Your task to perform on an android device: turn on sleep mode Image 0: 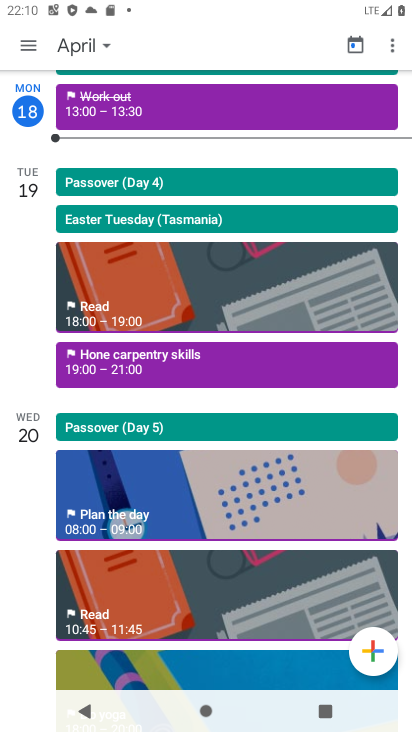
Step 0: press home button
Your task to perform on an android device: turn on sleep mode Image 1: 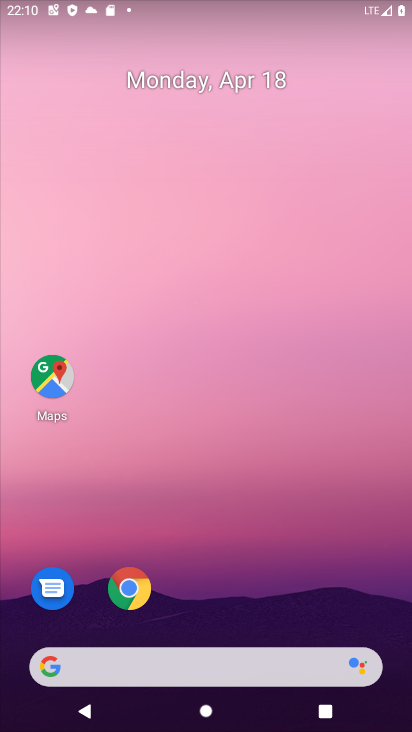
Step 1: drag from (365, 594) to (341, 170)
Your task to perform on an android device: turn on sleep mode Image 2: 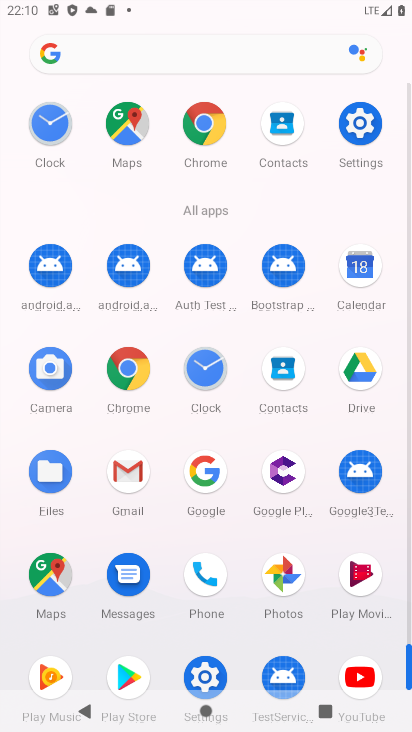
Step 2: click (204, 674)
Your task to perform on an android device: turn on sleep mode Image 3: 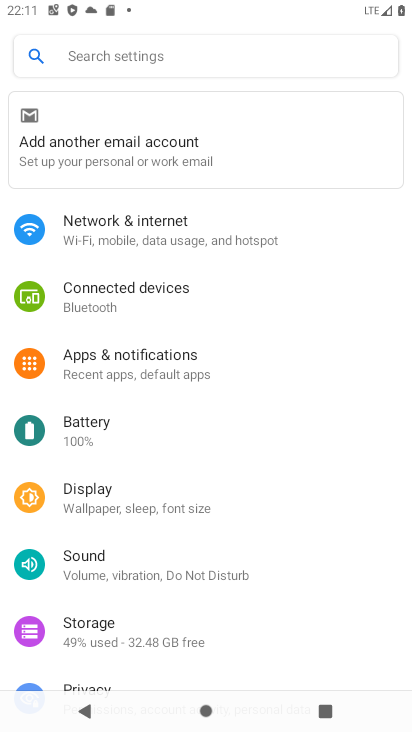
Step 3: click (109, 494)
Your task to perform on an android device: turn on sleep mode Image 4: 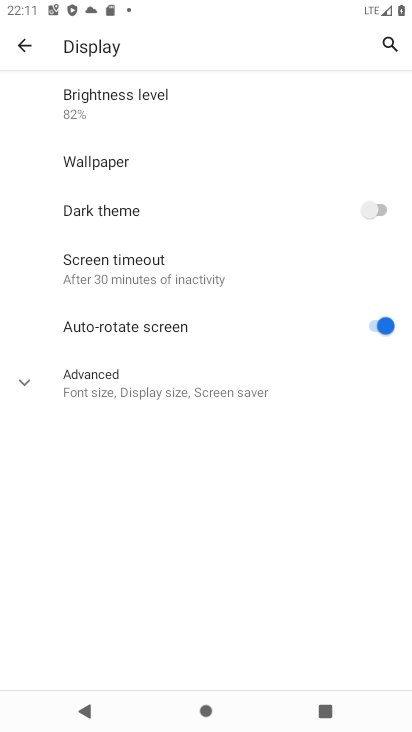
Step 4: task complete